Your task to perform on an android device: turn off wifi Image 0: 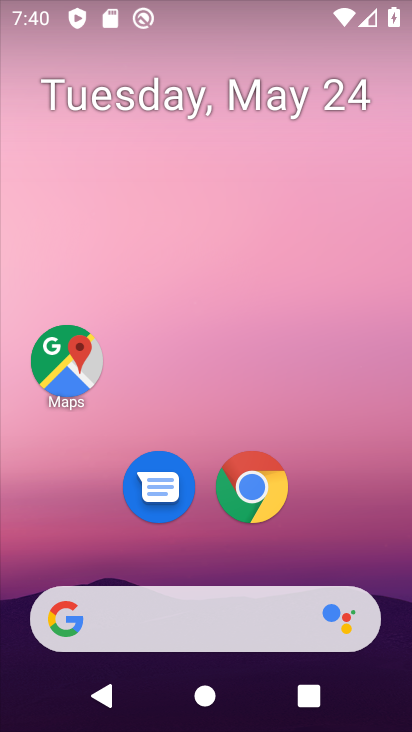
Step 0: drag from (166, 3) to (218, 388)
Your task to perform on an android device: turn off wifi Image 1: 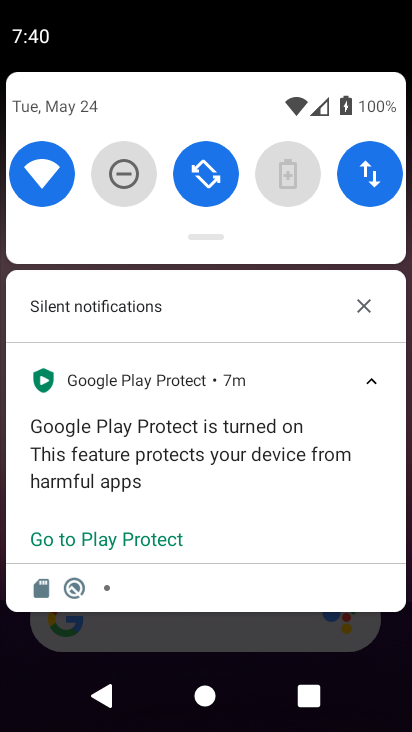
Step 1: click (43, 173)
Your task to perform on an android device: turn off wifi Image 2: 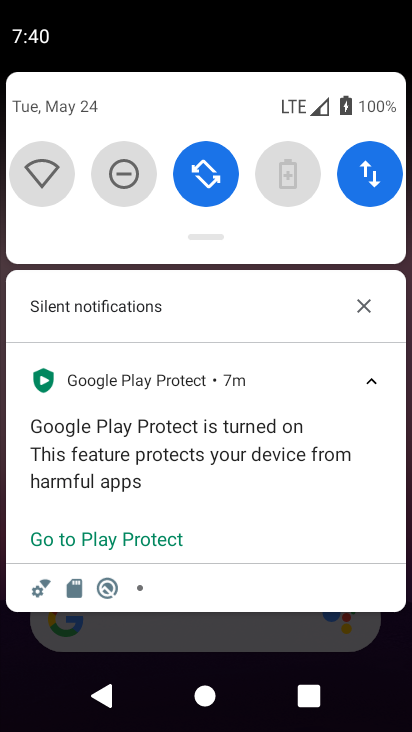
Step 2: task complete